Your task to perform on an android device: Go to Google maps Image 0: 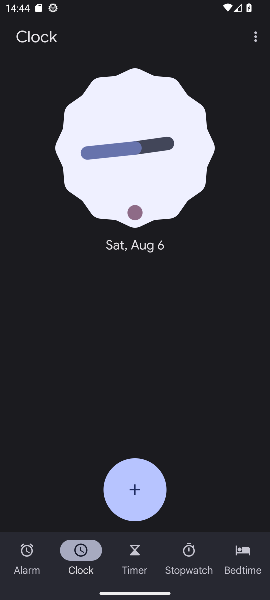
Step 0: press home button
Your task to perform on an android device: Go to Google maps Image 1: 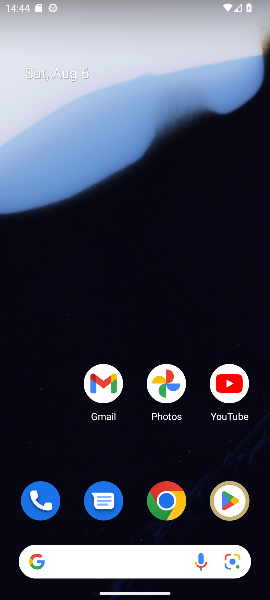
Step 1: drag from (139, 518) to (124, 42)
Your task to perform on an android device: Go to Google maps Image 2: 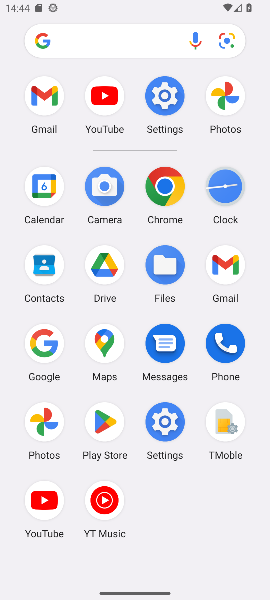
Step 2: click (108, 344)
Your task to perform on an android device: Go to Google maps Image 3: 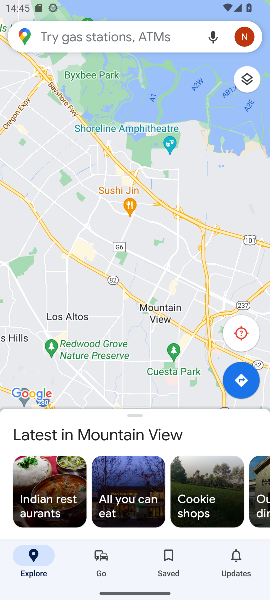
Step 3: task complete